Your task to perform on an android device: Open privacy settings Image 0: 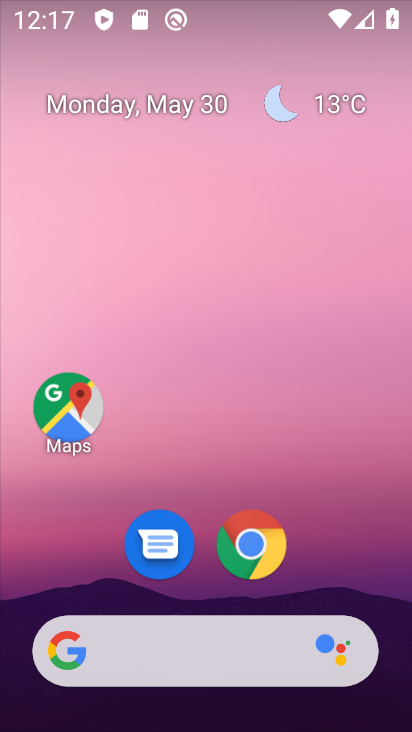
Step 0: drag from (348, 596) to (329, 375)
Your task to perform on an android device: Open privacy settings Image 1: 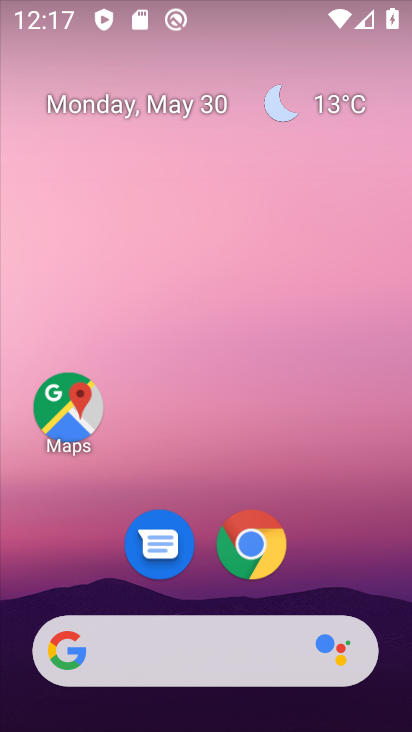
Step 1: drag from (380, 577) to (162, 0)
Your task to perform on an android device: Open privacy settings Image 2: 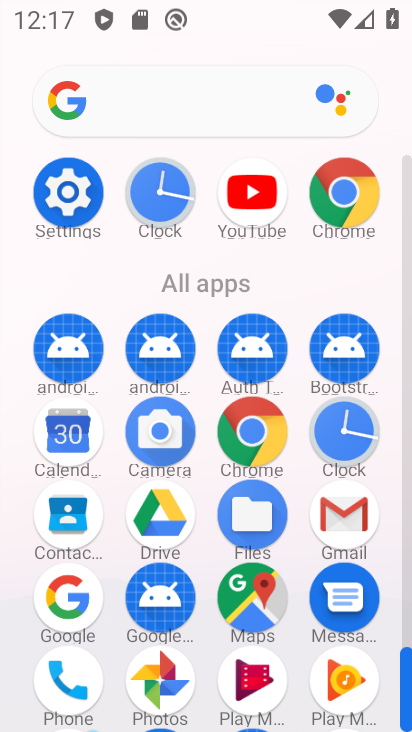
Step 2: click (63, 154)
Your task to perform on an android device: Open privacy settings Image 3: 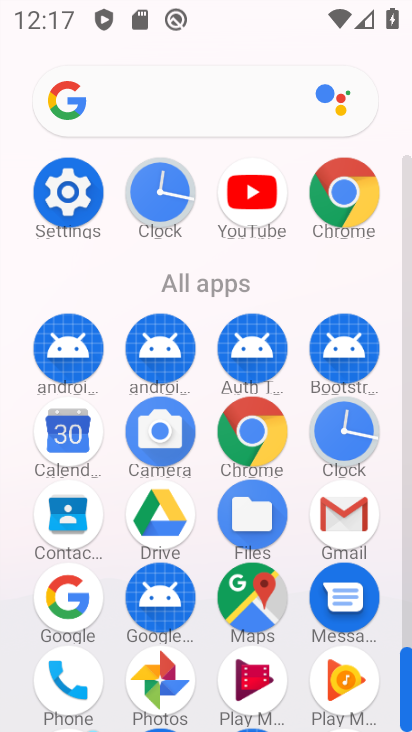
Step 3: click (63, 176)
Your task to perform on an android device: Open privacy settings Image 4: 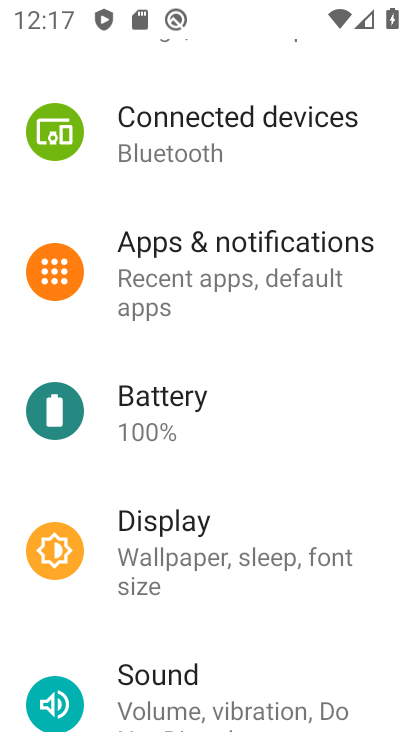
Step 4: drag from (166, 605) to (214, 212)
Your task to perform on an android device: Open privacy settings Image 5: 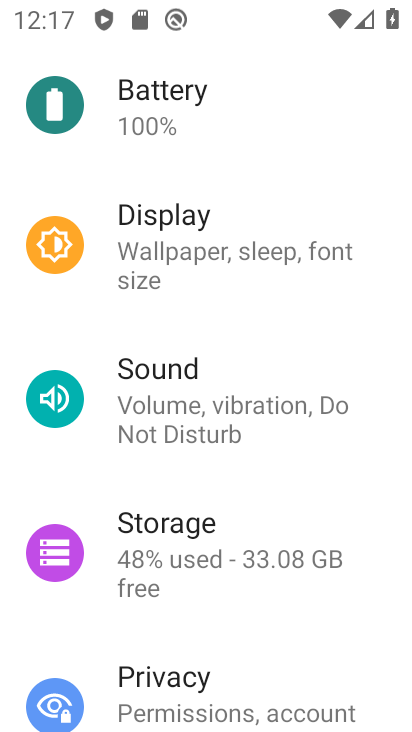
Step 5: click (211, 682)
Your task to perform on an android device: Open privacy settings Image 6: 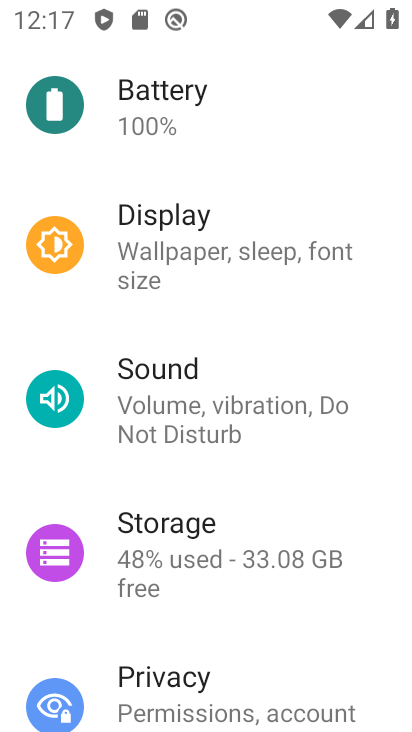
Step 6: task complete